Your task to perform on an android device: toggle sleep mode Image 0: 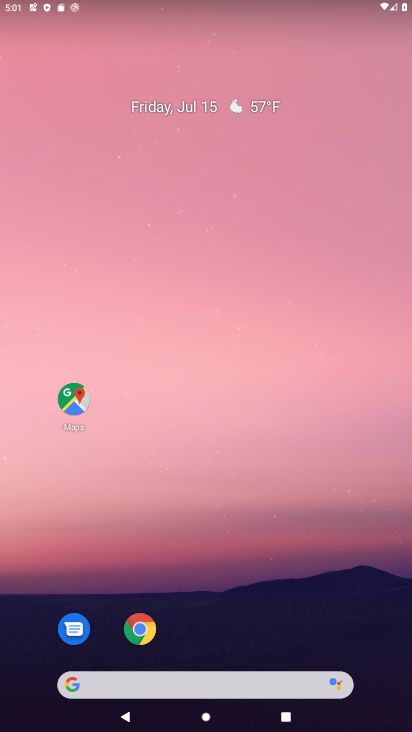
Step 0: press home button
Your task to perform on an android device: toggle sleep mode Image 1: 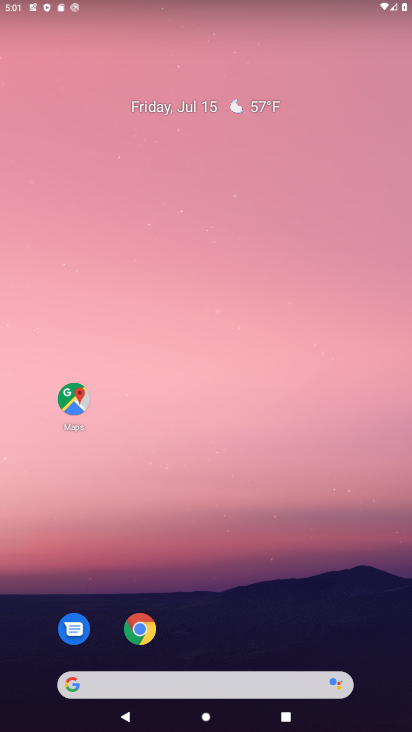
Step 1: drag from (248, 613) to (239, 50)
Your task to perform on an android device: toggle sleep mode Image 2: 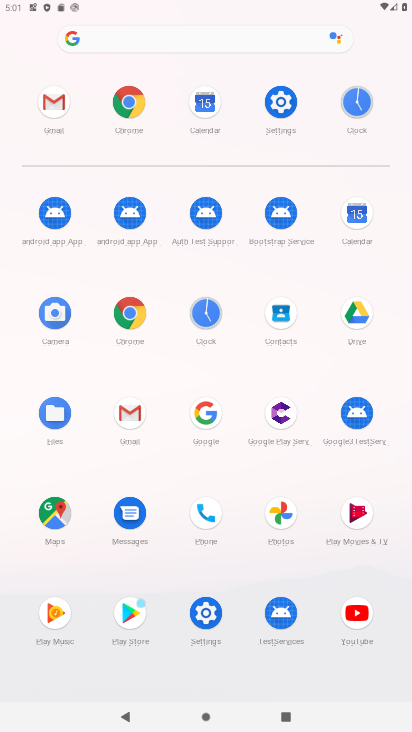
Step 2: click (271, 109)
Your task to perform on an android device: toggle sleep mode Image 3: 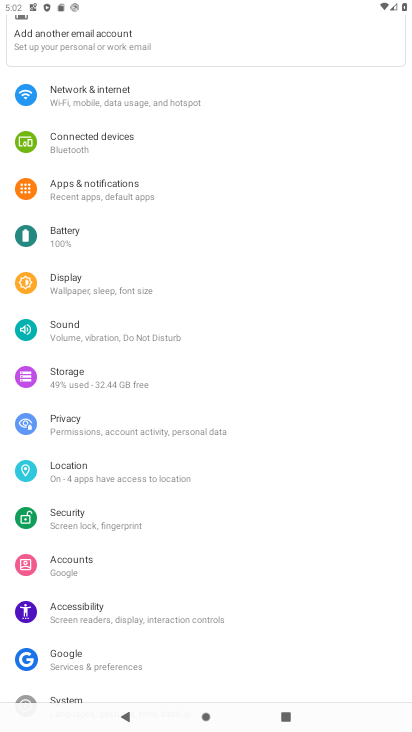
Step 3: click (84, 284)
Your task to perform on an android device: toggle sleep mode Image 4: 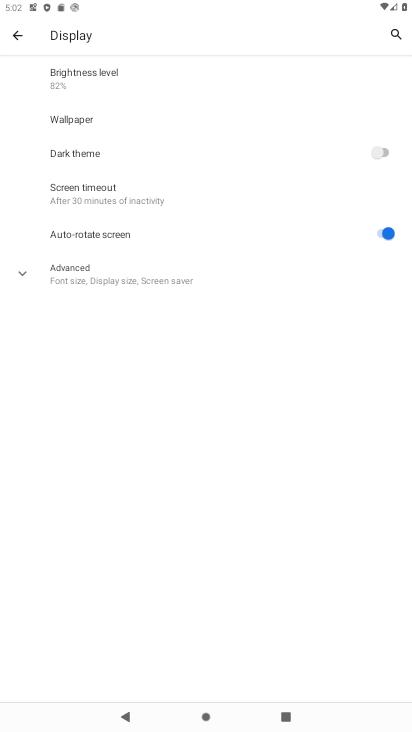
Step 4: click (15, 272)
Your task to perform on an android device: toggle sleep mode Image 5: 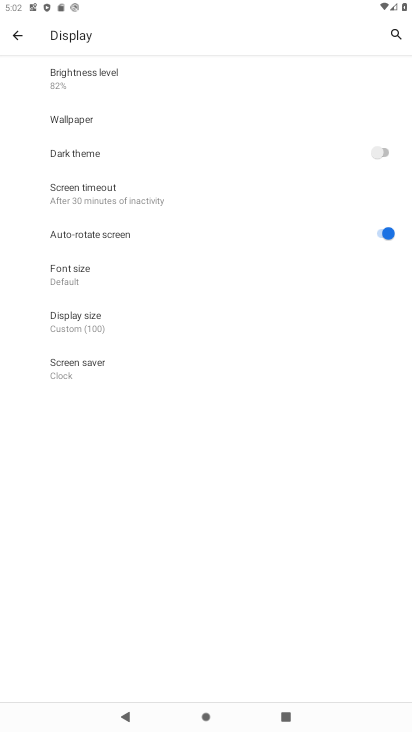
Step 5: task complete